Your task to perform on an android device: Go to battery settings Image 0: 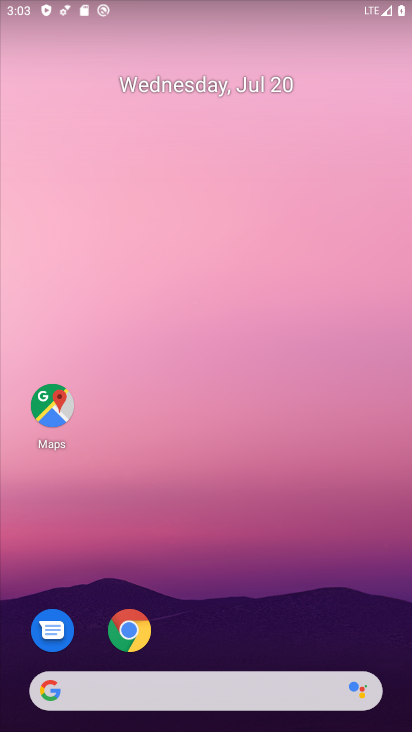
Step 0: press home button
Your task to perform on an android device: Go to battery settings Image 1: 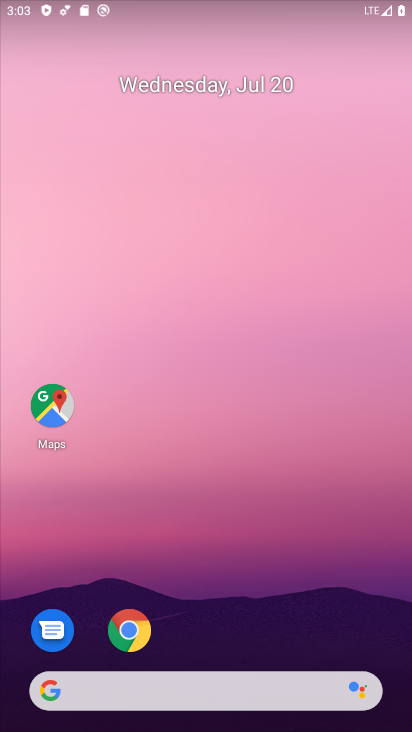
Step 1: drag from (204, 615) to (187, 46)
Your task to perform on an android device: Go to battery settings Image 2: 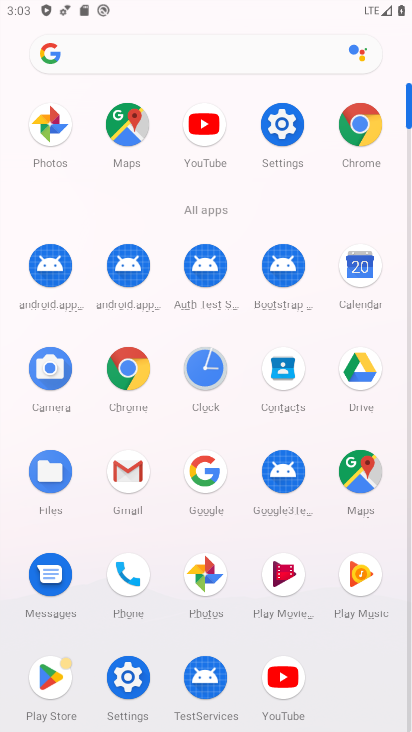
Step 2: click (271, 104)
Your task to perform on an android device: Go to battery settings Image 3: 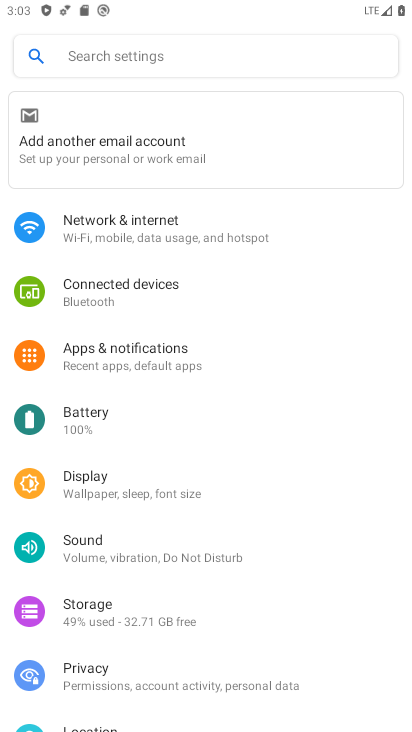
Step 3: click (89, 425)
Your task to perform on an android device: Go to battery settings Image 4: 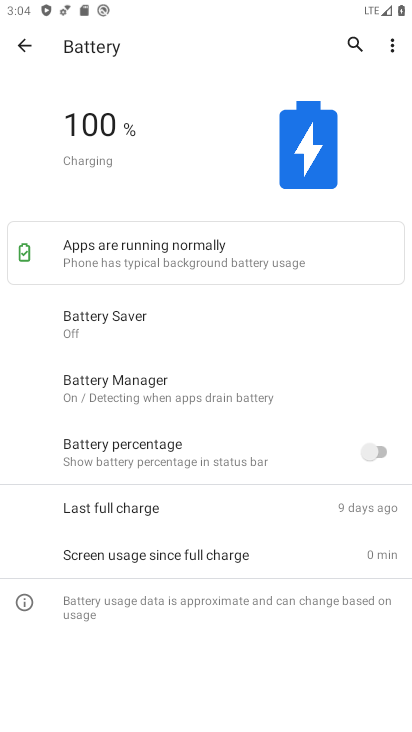
Step 4: task complete